Your task to perform on an android device: turn notification dots on Image 0: 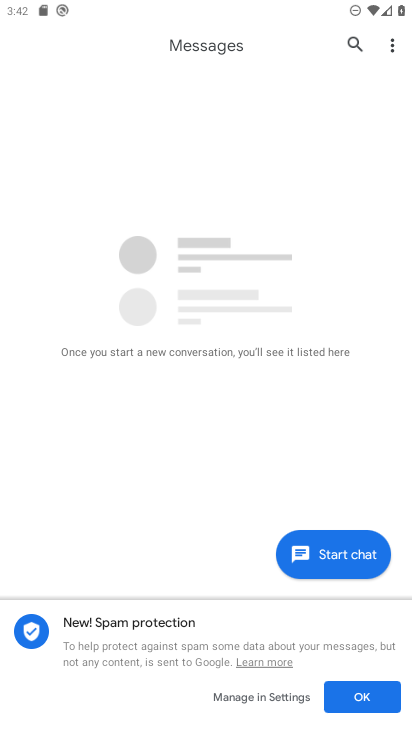
Step 0: press home button
Your task to perform on an android device: turn notification dots on Image 1: 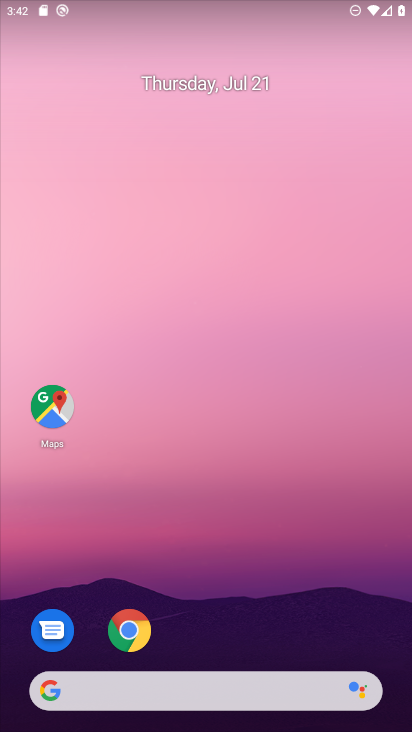
Step 1: drag from (237, 671) to (200, 127)
Your task to perform on an android device: turn notification dots on Image 2: 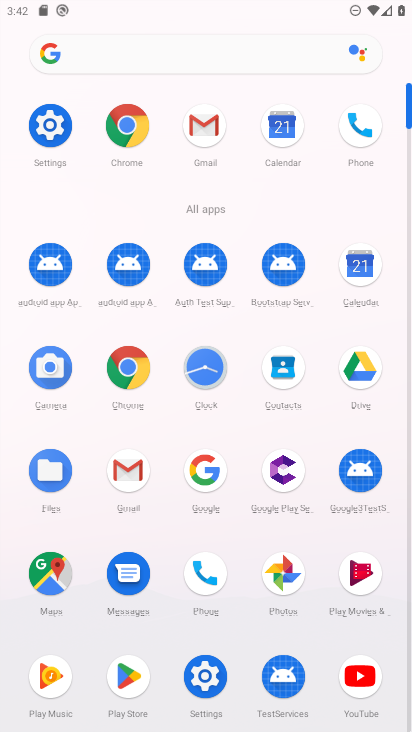
Step 2: click (195, 669)
Your task to perform on an android device: turn notification dots on Image 3: 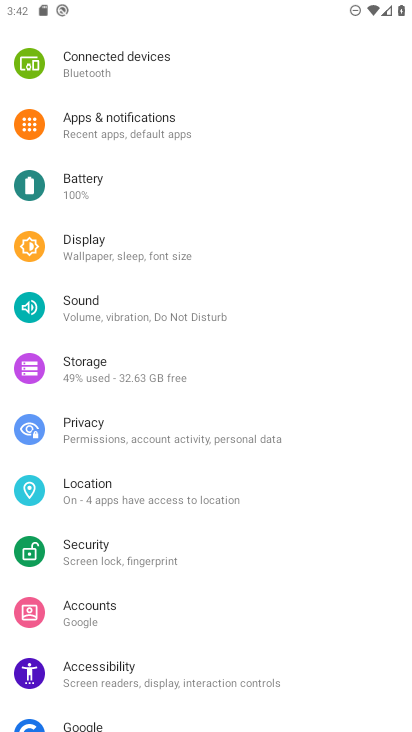
Step 3: click (138, 133)
Your task to perform on an android device: turn notification dots on Image 4: 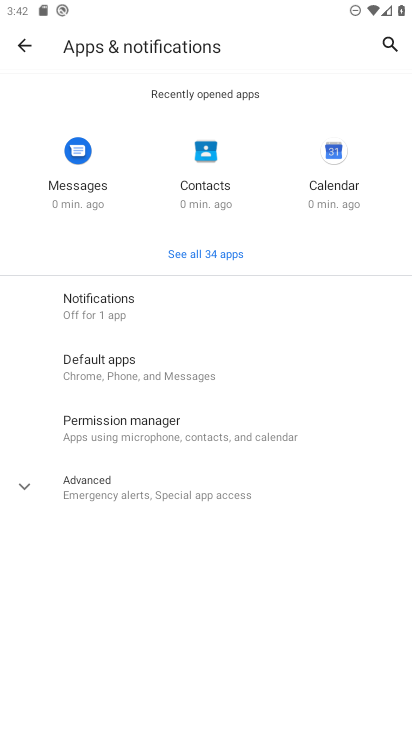
Step 4: click (78, 309)
Your task to perform on an android device: turn notification dots on Image 5: 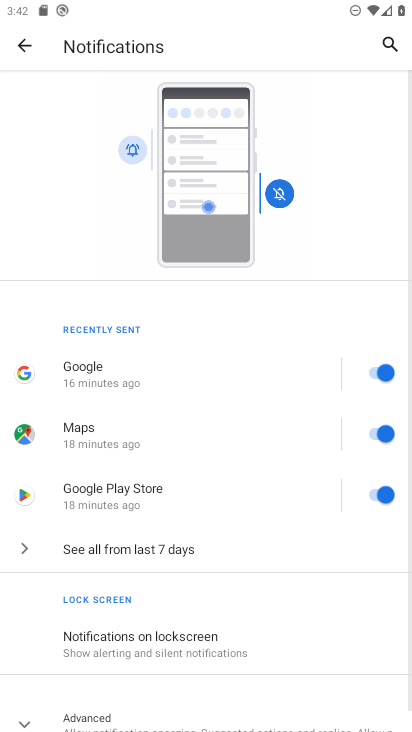
Step 5: drag from (187, 652) to (105, 122)
Your task to perform on an android device: turn notification dots on Image 6: 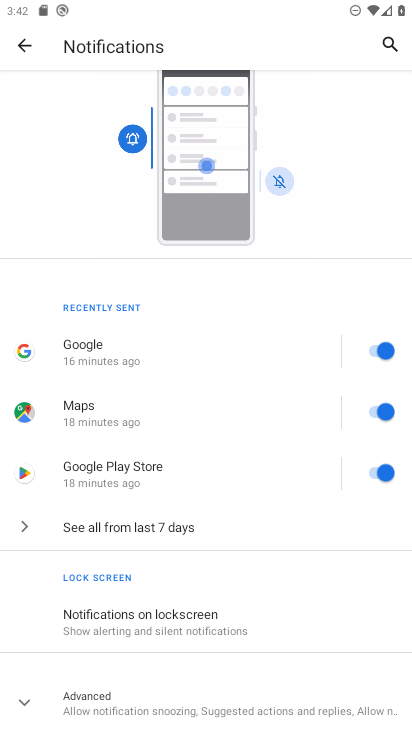
Step 6: click (148, 695)
Your task to perform on an android device: turn notification dots on Image 7: 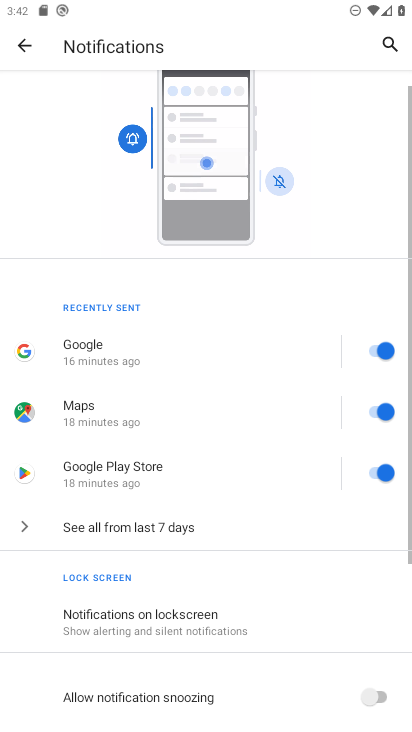
Step 7: task complete